Your task to perform on an android device: Search for lenovo thinkpad on costco, select the first entry, add it to the cart, then select checkout. Image 0: 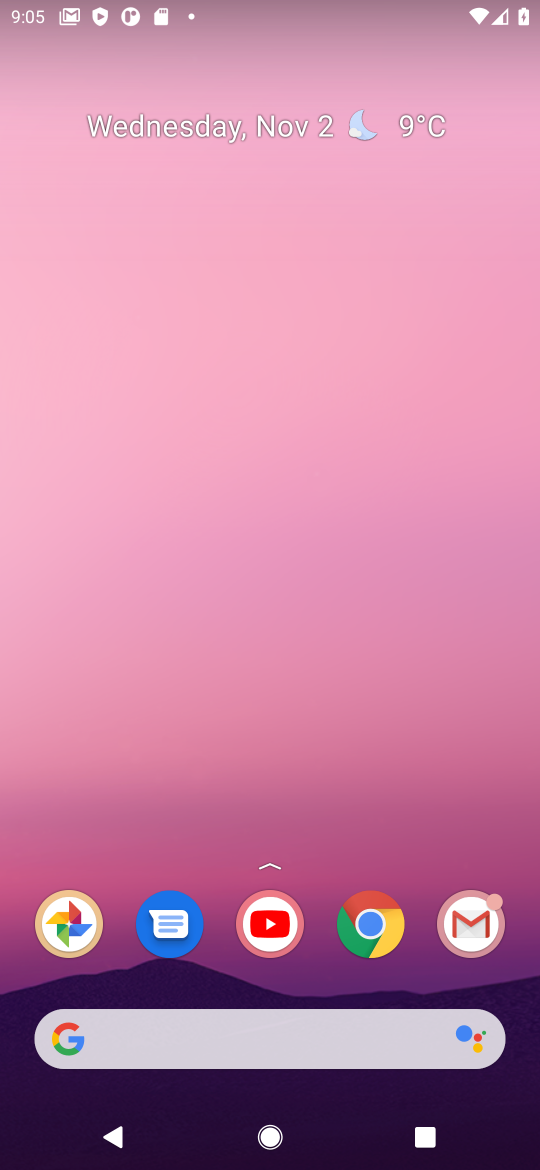
Step 0: click (351, 924)
Your task to perform on an android device: Search for lenovo thinkpad on costco, select the first entry, add it to the cart, then select checkout. Image 1: 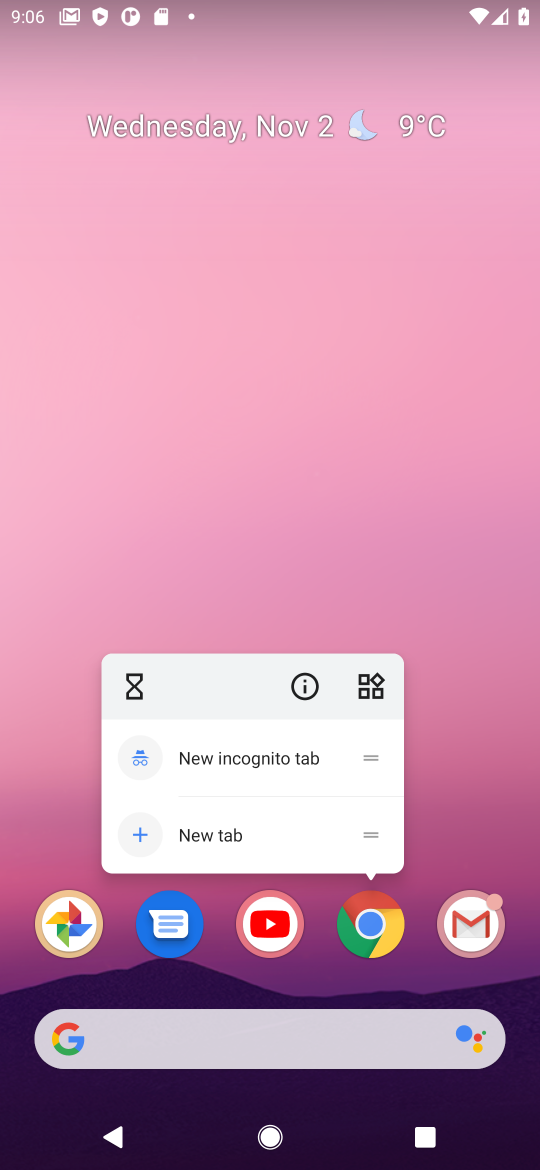
Step 1: click (351, 924)
Your task to perform on an android device: Search for lenovo thinkpad on costco, select the first entry, add it to the cart, then select checkout. Image 2: 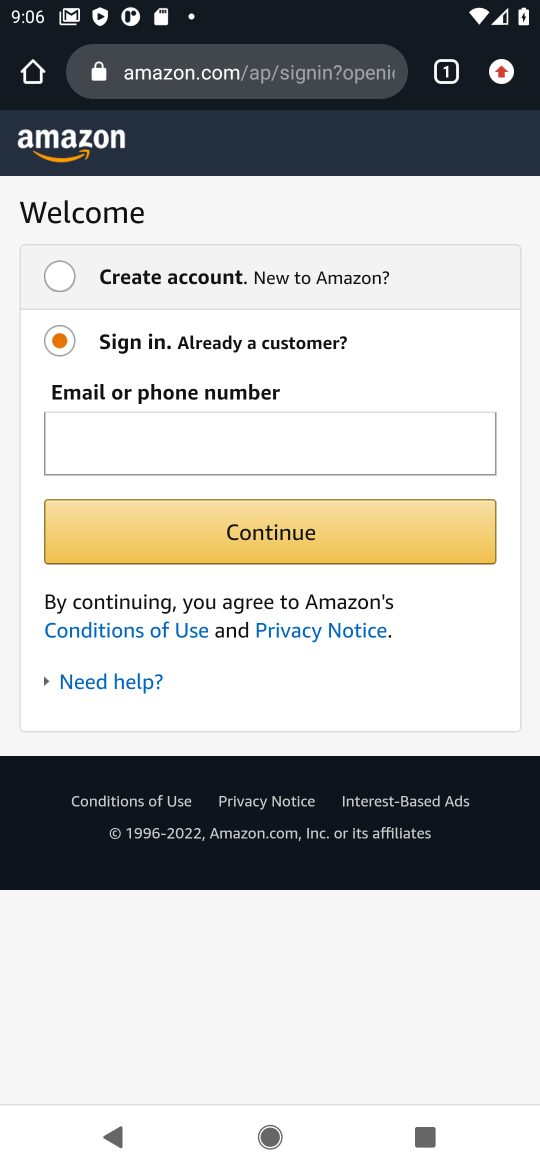
Step 2: click (184, 74)
Your task to perform on an android device: Search for lenovo thinkpad on costco, select the first entry, add it to the cart, then select checkout. Image 3: 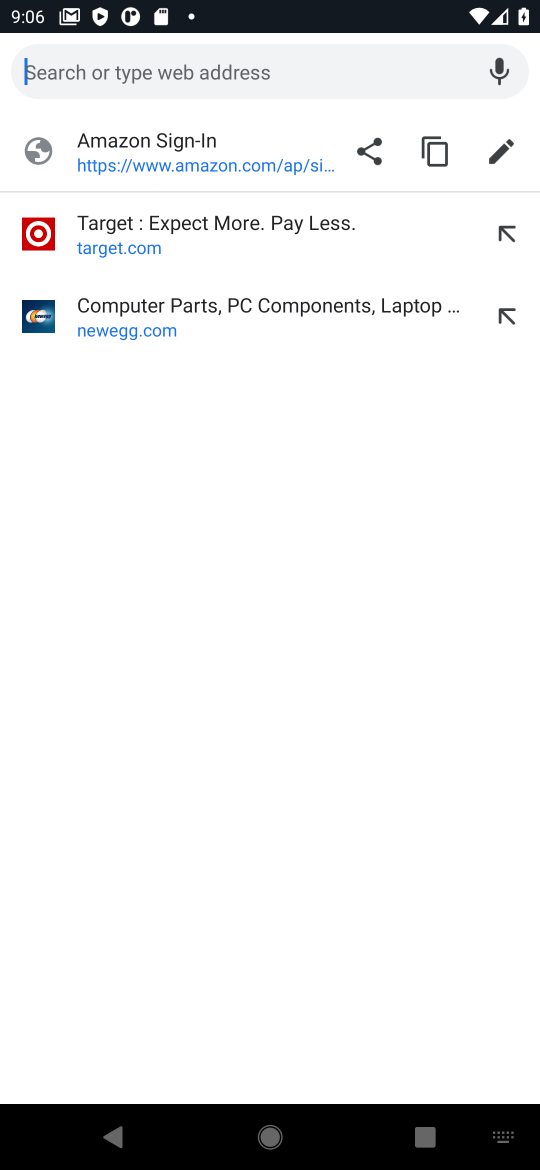
Step 3: type "costco"
Your task to perform on an android device: Search for lenovo thinkpad on costco, select the first entry, add it to the cart, then select checkout. Image 4: 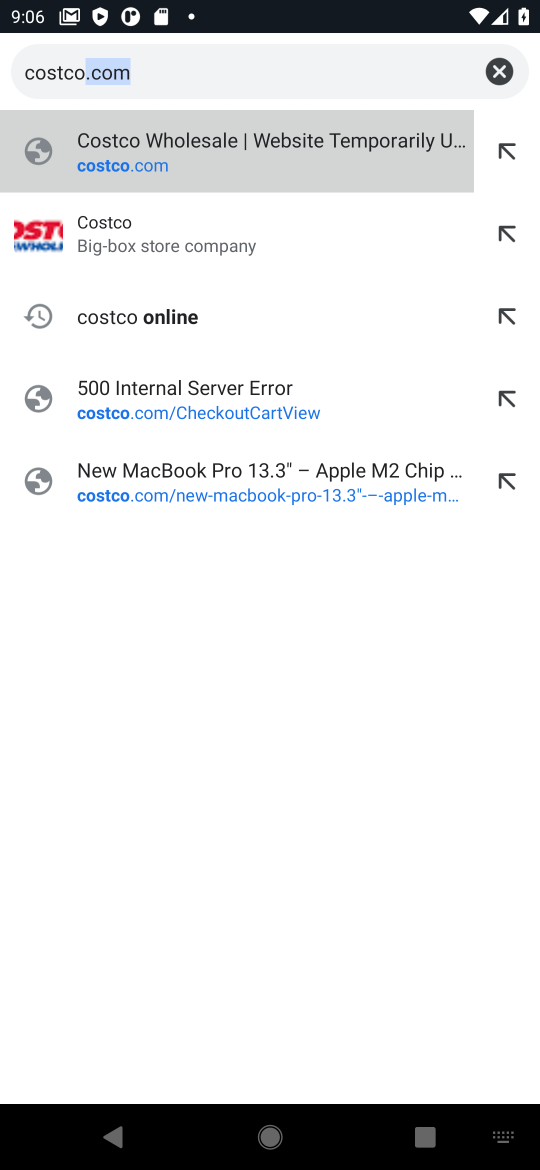
Step 4: type ""
Your task to perform on an android device: Search for lenovo thinkpad on costco, select the first entry, add it to the cart, then select checkout. Image 5: 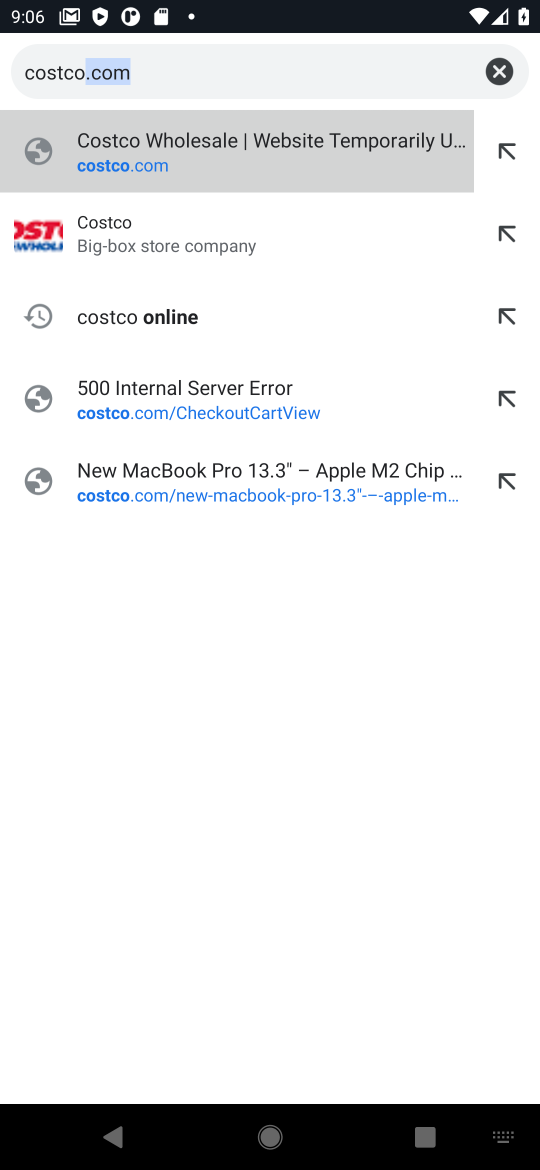
Step 5: click (76, 233)
Your task to perform on an android device: Search for lenovo thinkpad on costco, select the first entry, add it to the cart, then select checkout. Image 6: 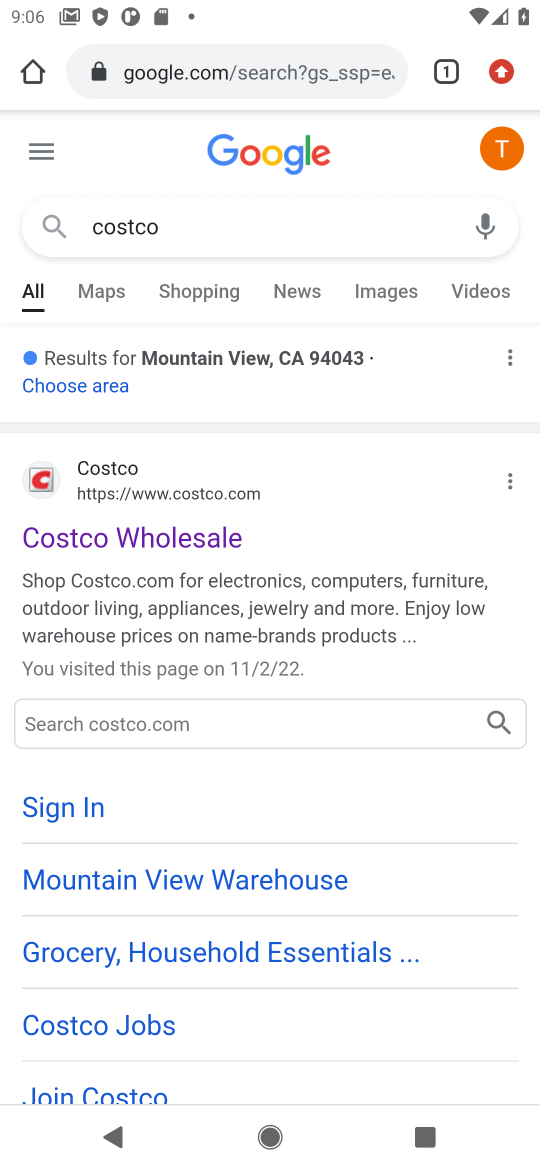
Step 6: click (64, 533)
Your task to perform on an android device: Search for lenovo thinkpad on costco, select the first entry, add it to the cart, then select checkout. Image 7: 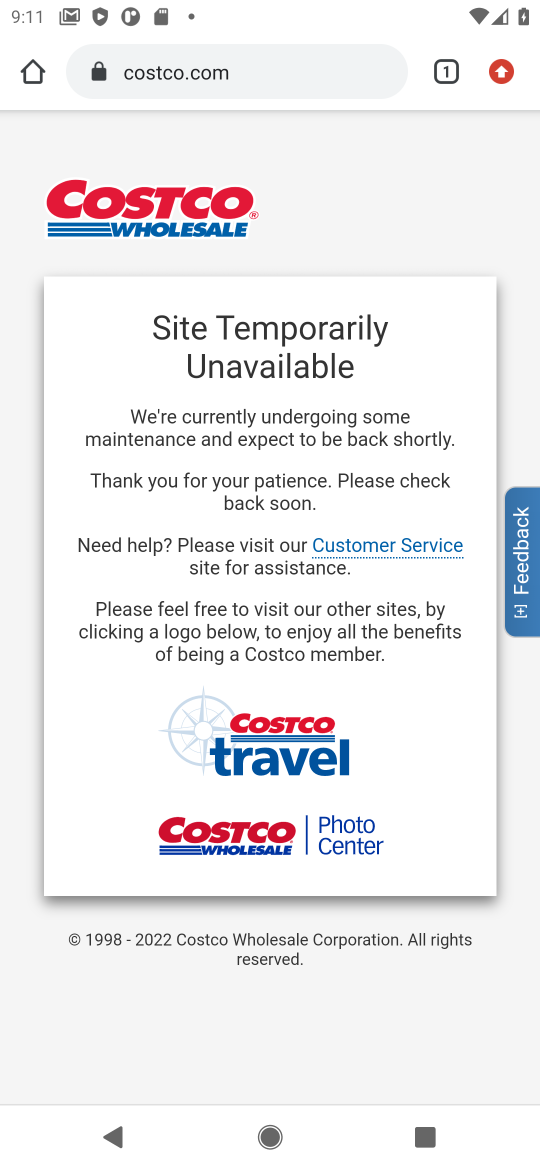
Step 7: task complete